Your task to perform on an android device: check the backup settings in the google photos Image 0: 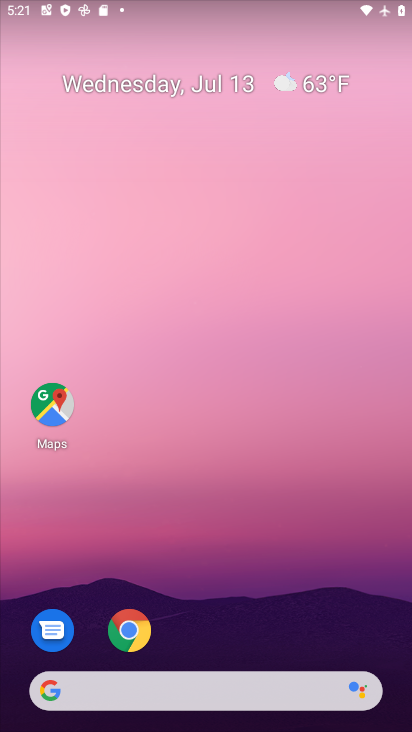
Step 0: drag from (210, 323) to (192, 138)
Your task to perform on an android device: check the backup settings in the google photos Image 1: 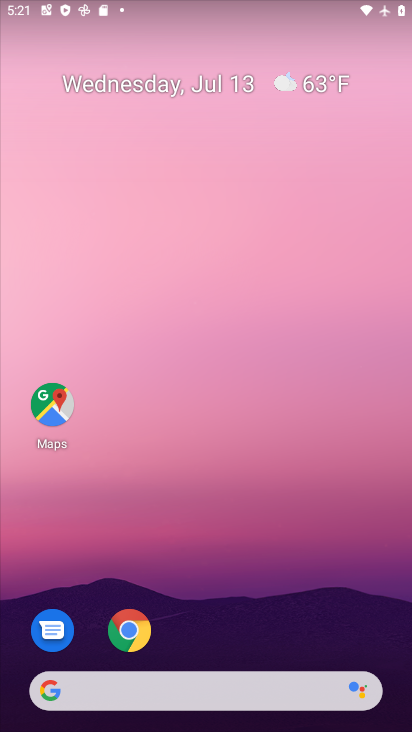
Step 1: drag from (237, 565) to (146, 52)
Your task to perform on an android device: check the backup settings in the google photos Image 2: 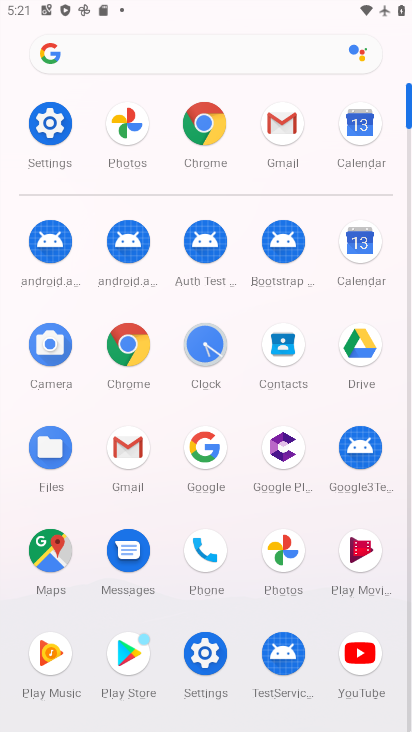
Step 2: click (126, 125)
Your task to perform on an android device: check the backup settings in the google photos Image 3: 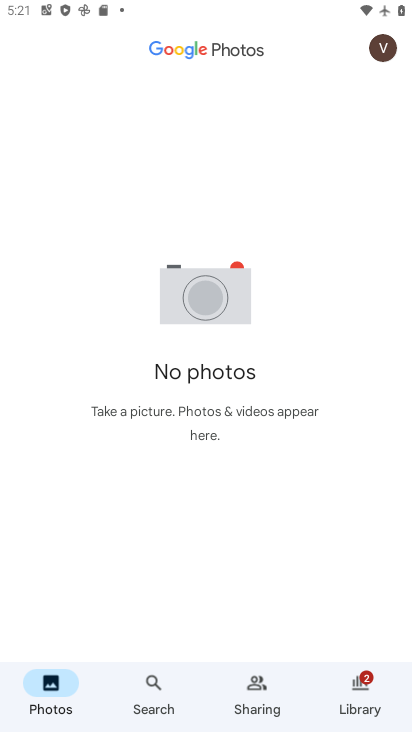
Step 3: click (378, 48)
Your task to perform on an android device: check the backup settings in the google photos Image 4: 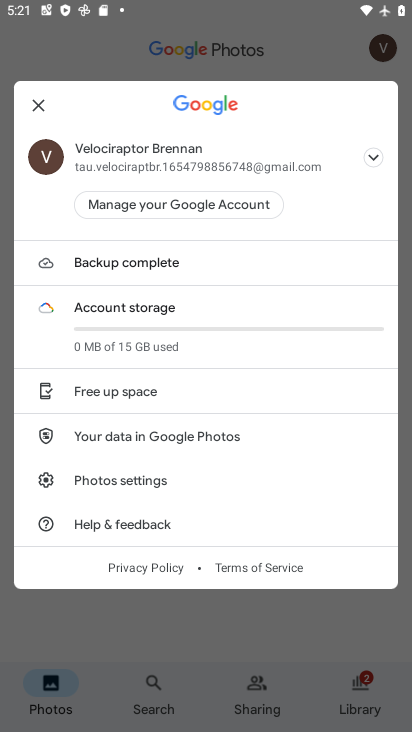
Step 4: click (131, 480)
Your task to perform on an android device: check the backup settings in the google photos Image 5: 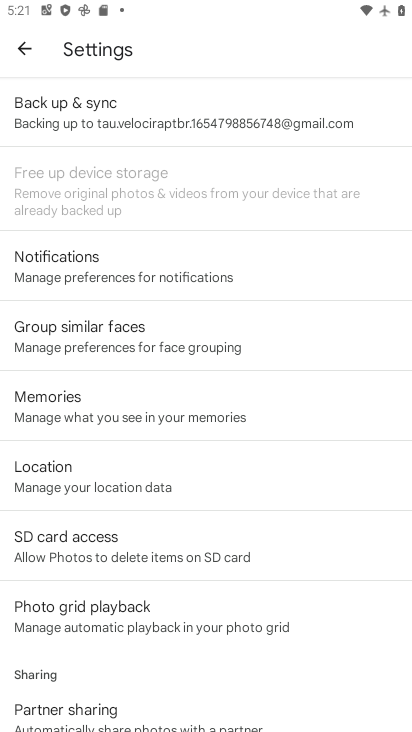
Step 5: click (82, 111)
Your task to perform on an android device: check the backup settings in the google photos Image 6: 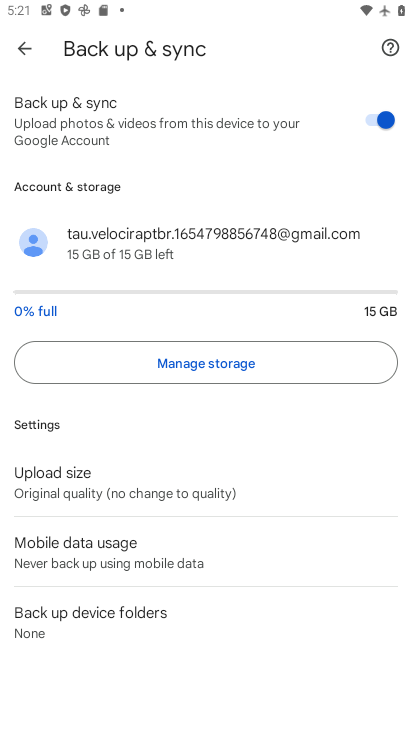
Step 6: task complete